Your task to perform on an android device: turn on wifi Image 0: 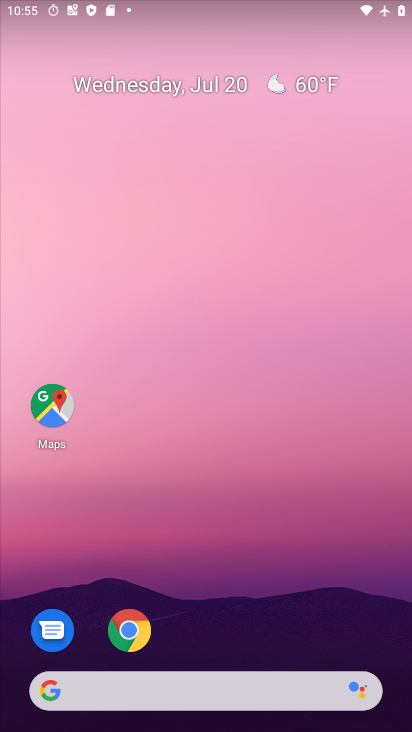
Step 0: drag from (206, 652) to (280, 38)
Your task to perform on an android device: turn on wifi Image 1: 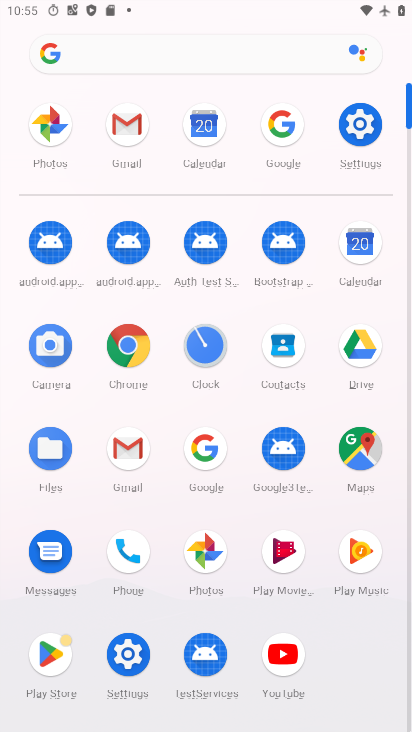
Step 1: click (365, 127)
Your task to perform on an android device: turn on wifi Image 2: 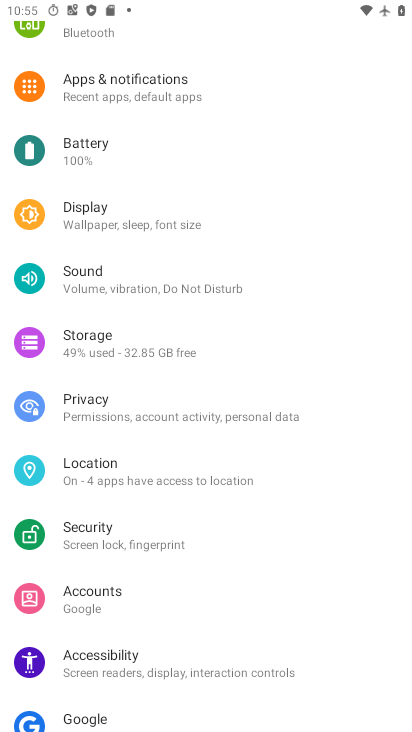
Step 2: drag from (129, 88) to (166, 462)
Your task to perform on an android device: turn on wifi Image 3: 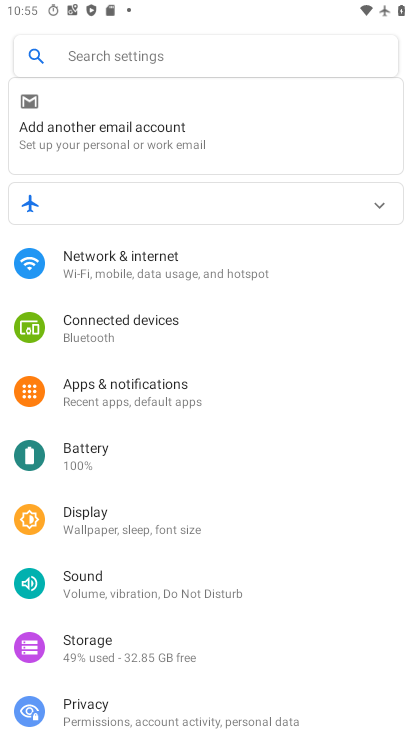
Step 3: click (142, 271)
Your task to perform on an android device: turn on wifi Image 4: 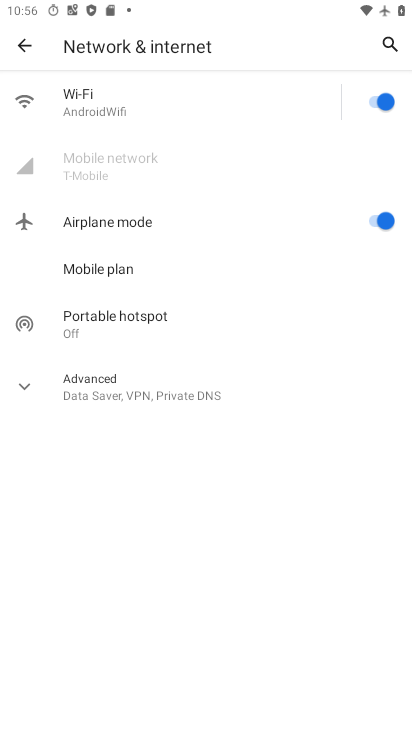
Step 4: task complete